Your task to perform on an android device: Go to Wikipedia Image 0: 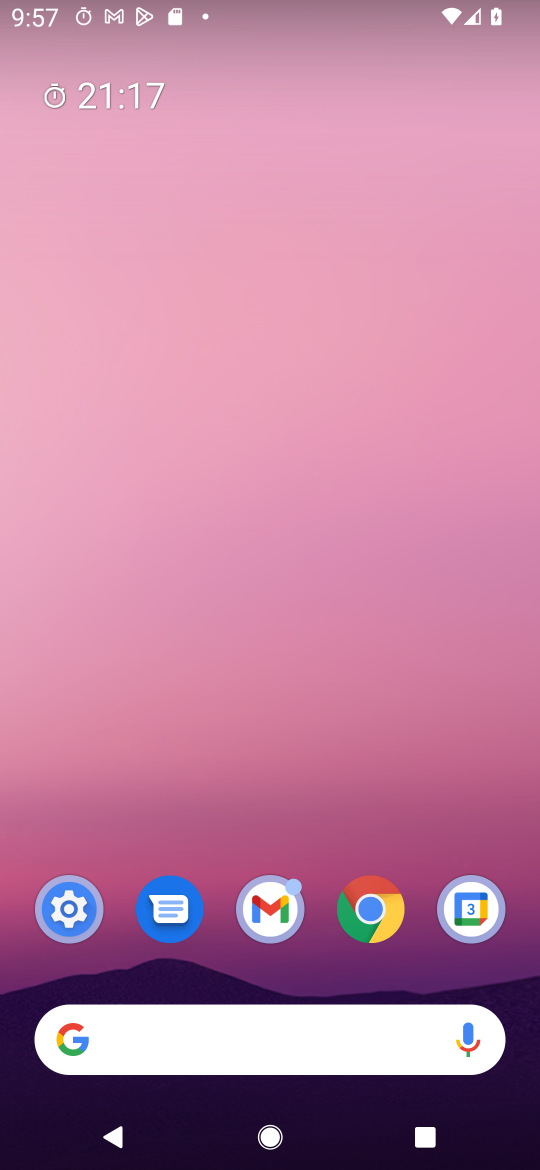
Step 0: press home button
Your task to perform on an android device: Go to Wikipedia Image 1: 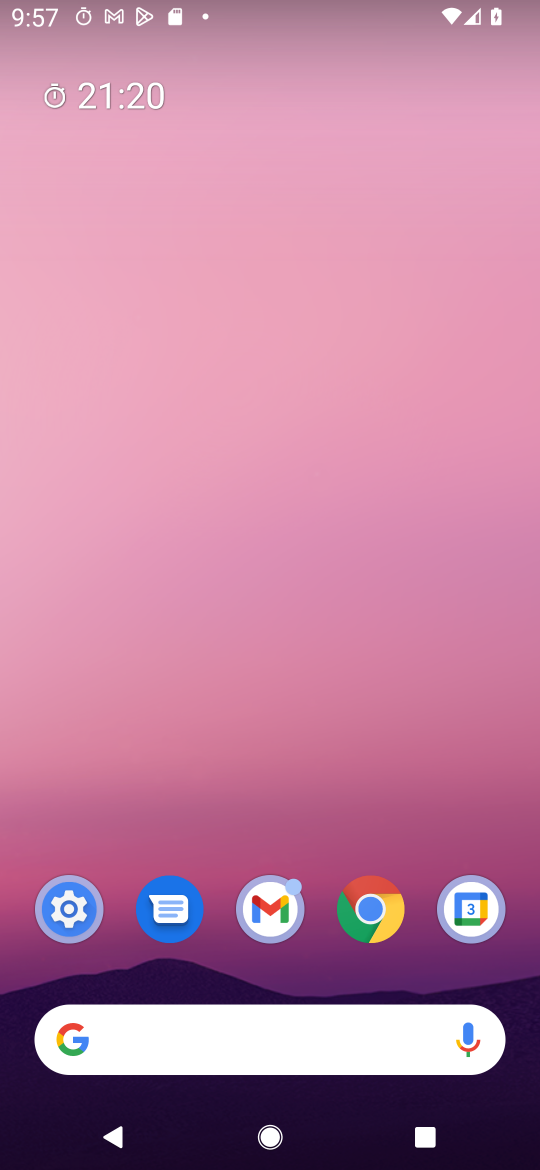
Step 1: drag from (411, 800) to (458, 235)
Your task to perform on an android device: Go to Wikipedia Image 2: 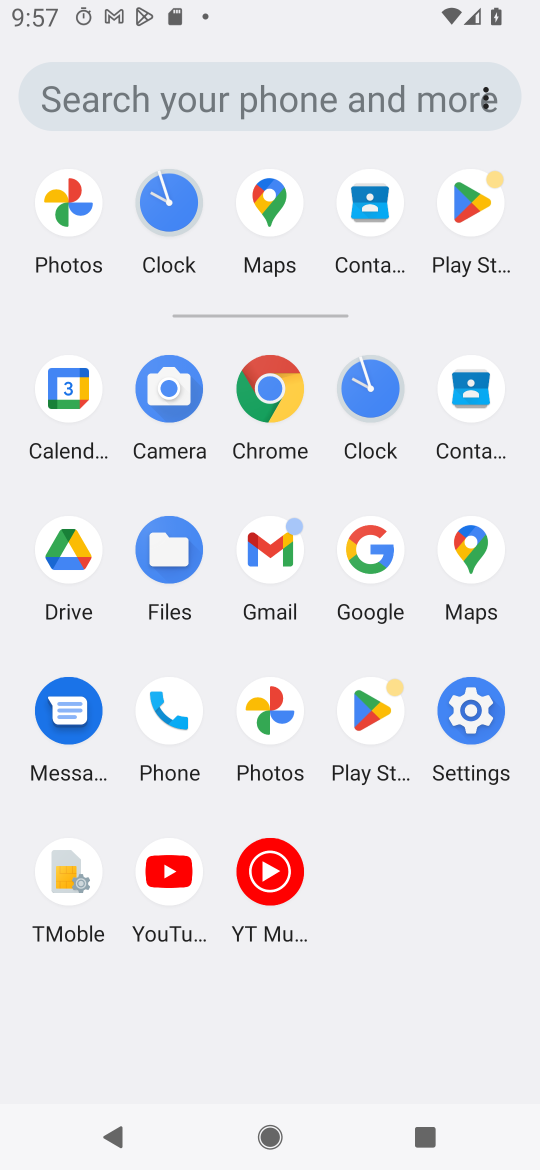
Step 2: click (272, 392)
Your task to perform on an android device: Go to Wikipedia Image 3: 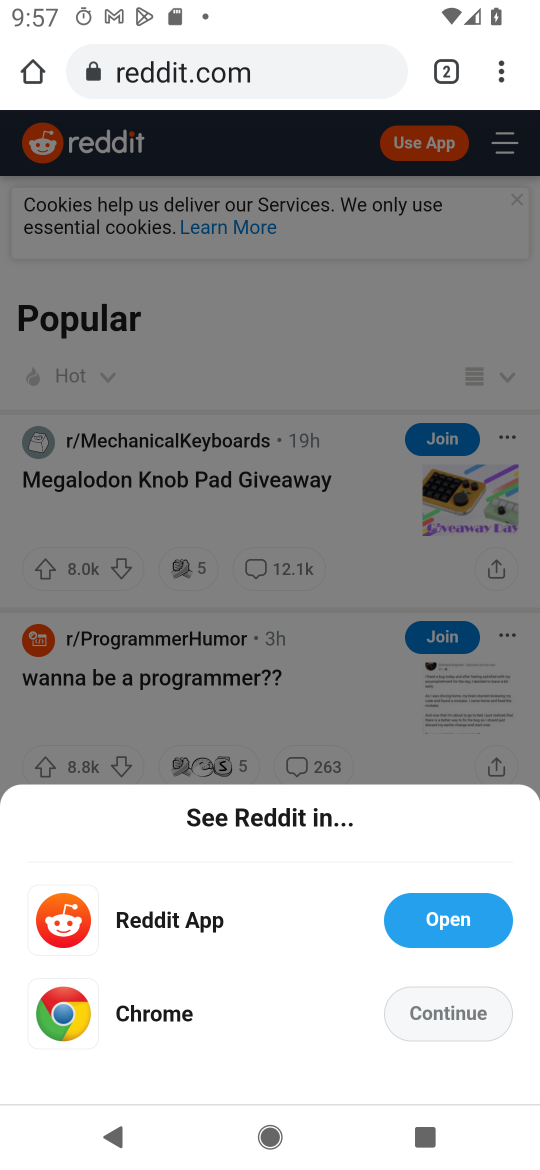
Step 3: click (299, 73)
Your task to perform on an android device: Go to Wikipedia Image 4: 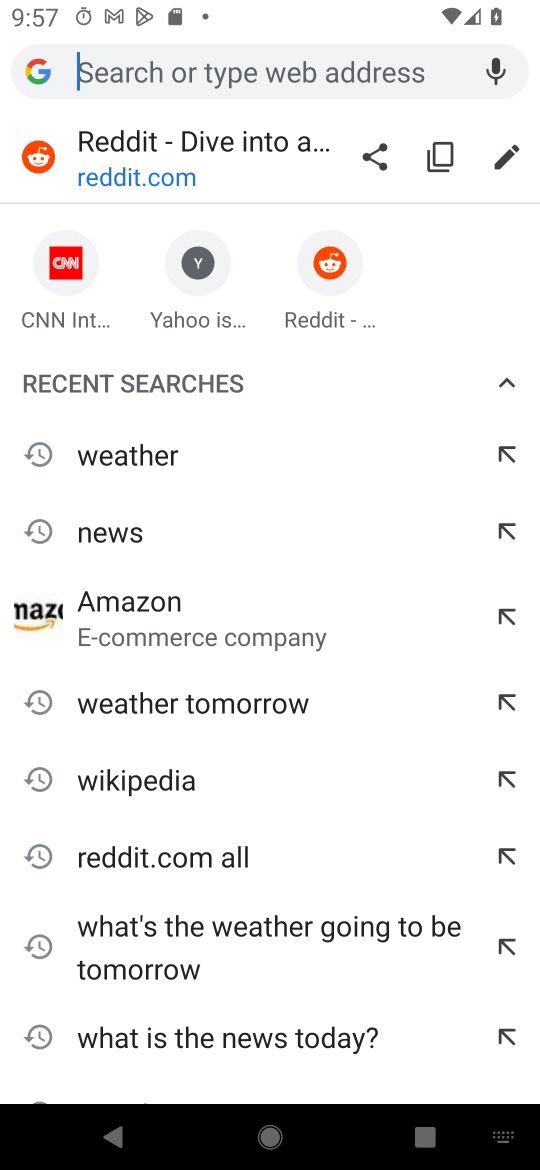
Step 4: type "wikipedia "
Your task to perform on an android device: Go to Wikipedia Image 5: 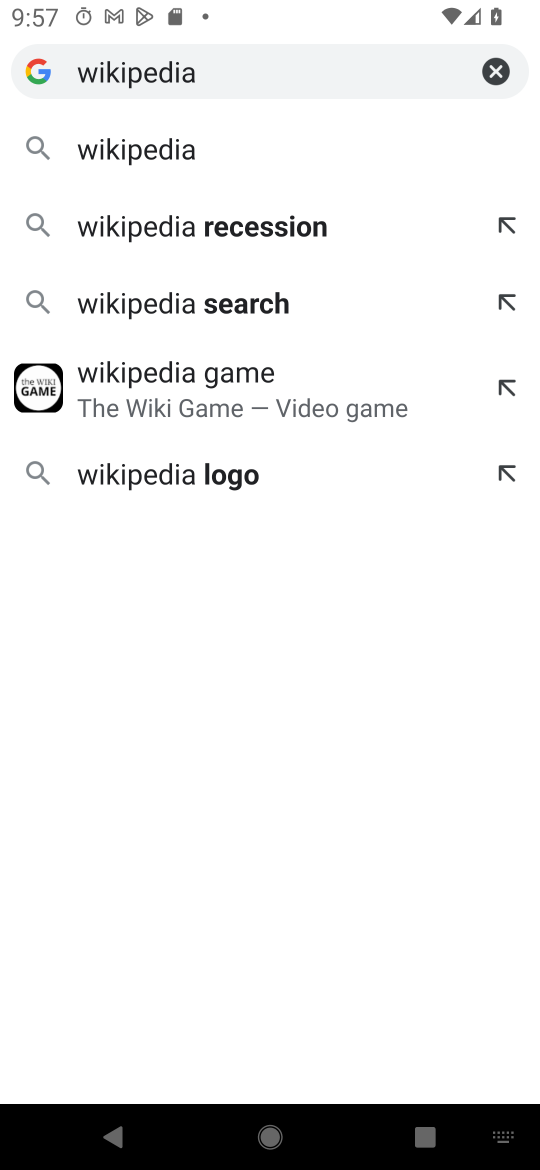
Step 5: click (211, 154)
Your task to perform on an android device: Go to Wikipedia Image 6: 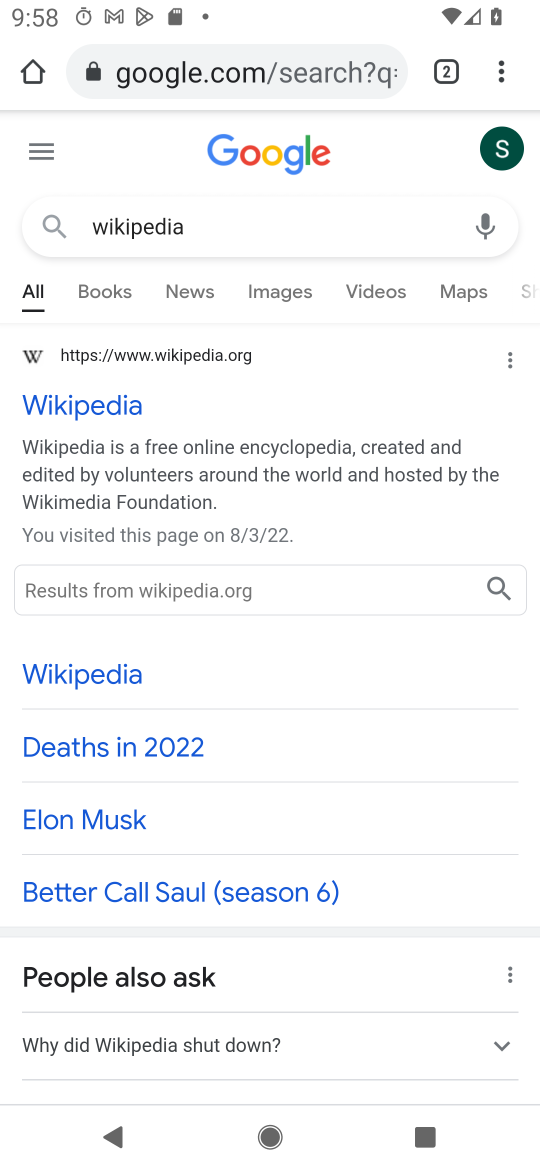
Step 6: task complete